Your task to perform on an android device: Go to CNN.com Image 0: 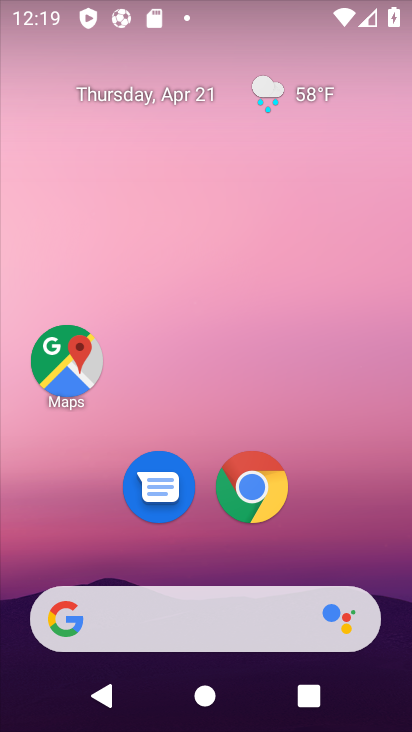
Step 0: click (254, 490)
Your task to perform on an android device: Go to CNN.com Image 1: 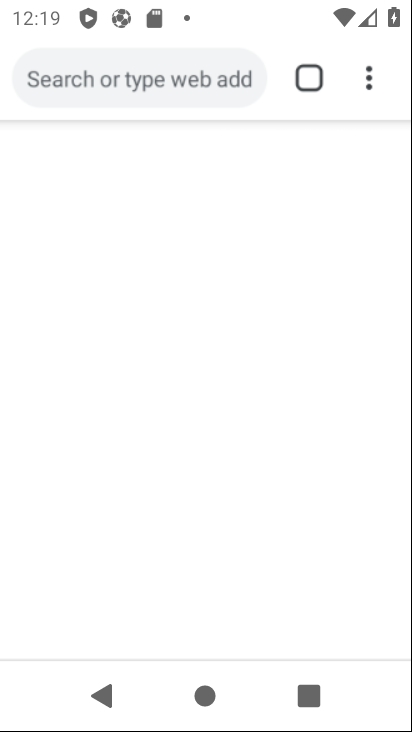
Step 1: click (150, 85)
Your task to perform on an android device: Go to CNN.com Image 2: 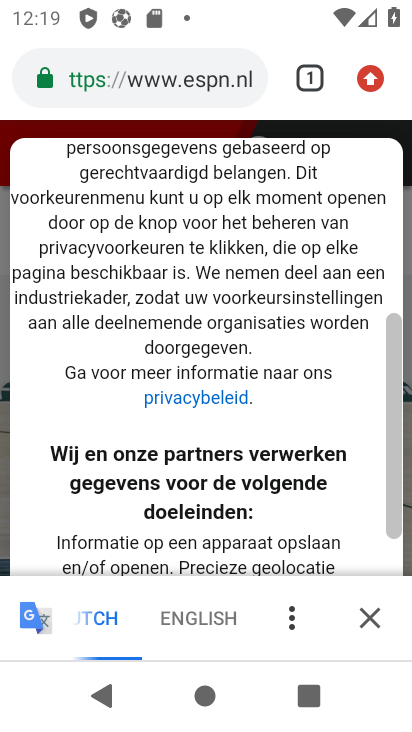
Step 2: click (150, 85)
Your task to perform on an android device: Go to CNN.com Image 3: 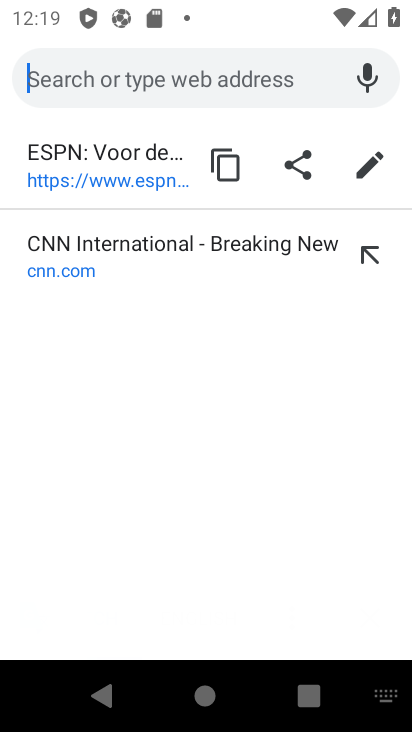
Step 3: click (73, 270)
Your task to perform on an android device: Go to CNN.com Image 4: 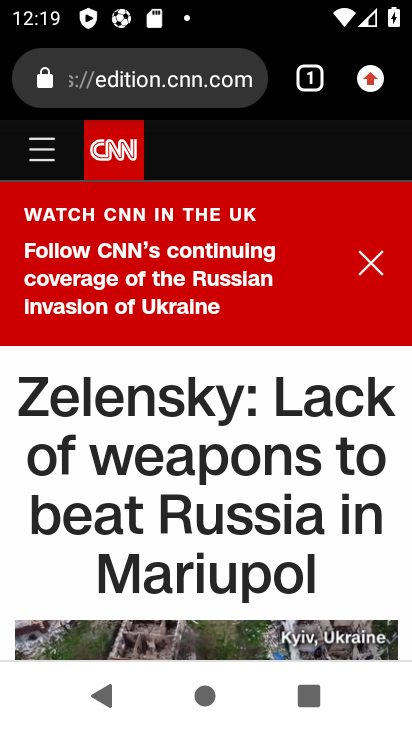
Step 4: task complete